Your task to perform on an android device: delete a single message in the gmail app Image 0: 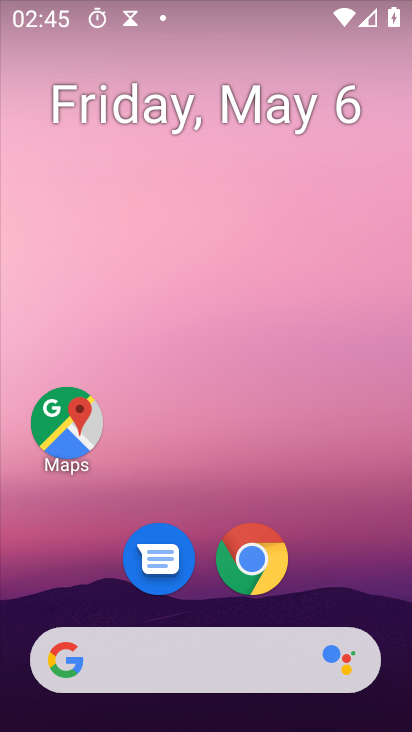
Step 0: drag from (315, 612) to (304, 7)
Your task to perform on an android device: delete a single message in the gmail app Image 1: 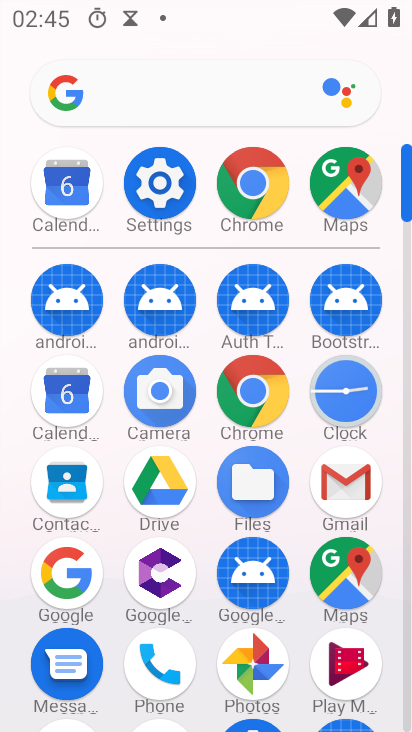
Step 1: click (345, 475)
Your task to perform on an android device: delete a single message in the gmail app Image 2: 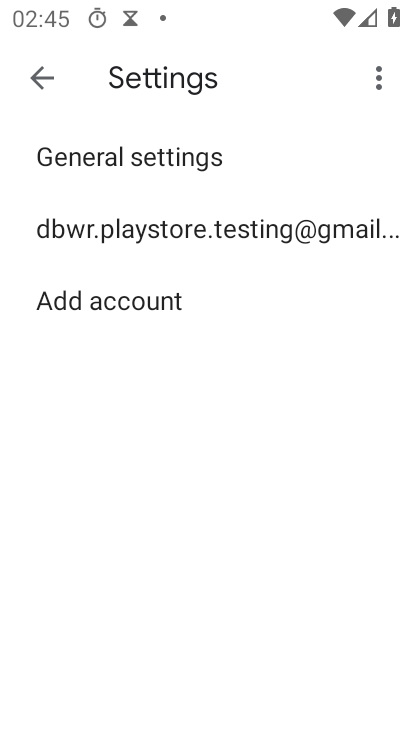
Step 2: press back button
Your task to perform on an android device: delete a single message in the gmail app Image 3: 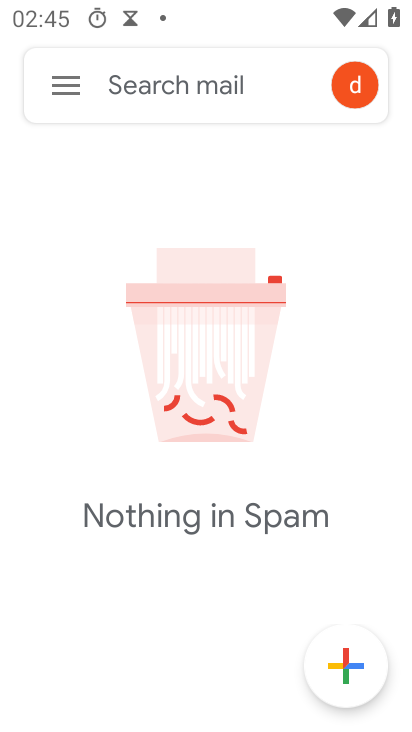
Step 3: click (73, 80)
Your task to perform on an android device: delete a single message in the gmail app Image 4: 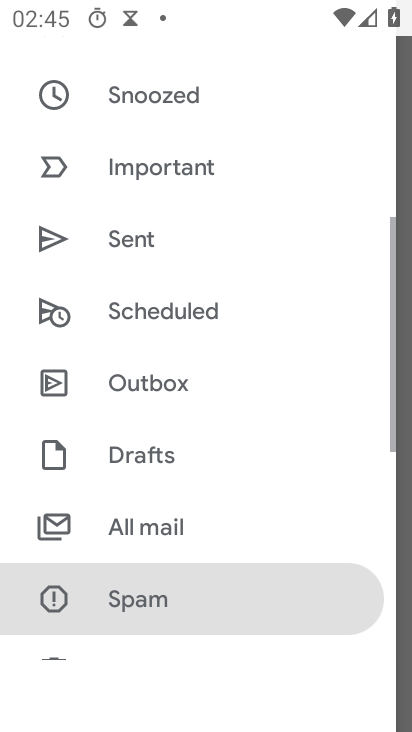
Step 4: drag from (174, 178) to (158, 725)
Your task to perform on an android device: delete a single message in the gmail app Image 5: 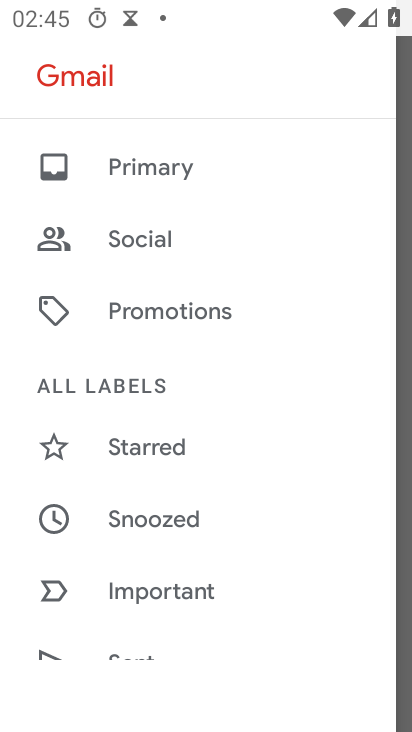
Step 5: click (173, 175)
Your task to perform on an android device: delete a single message in the gmail app Image 6: 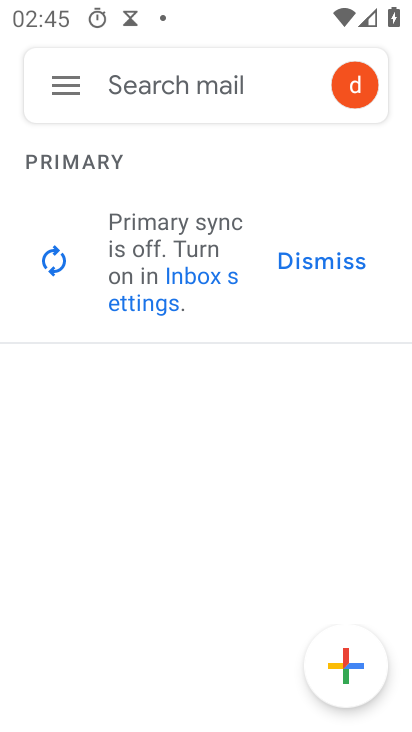
Step 6: task complete